Your task to perform on an android device: Clear all items from cart on ebay. Search for "macbook pro" on ebay, select the first entry, and add it to the cart. Image 0: 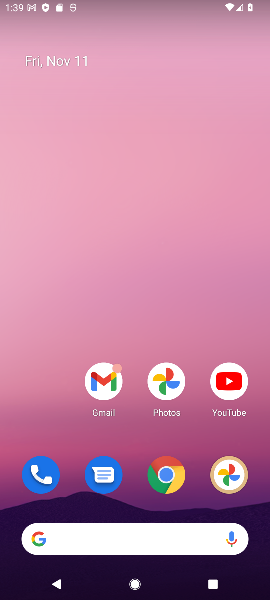
Step 0: drag from (113, 528) to (51, 112)
Your task to perform on an android device: Clear all items from cart on ebay. Search for "macbook pro" on ebay, select the first entry, and add it to the cart. Image 1: 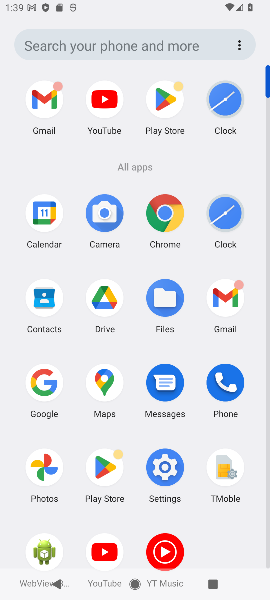
Step 1: click (172, 214)
Your task to perform on an android device: Clear all items from cart on ebay. Search for "macbook pro" on ebay, select the first entry, and add it to the cart. Image 2: 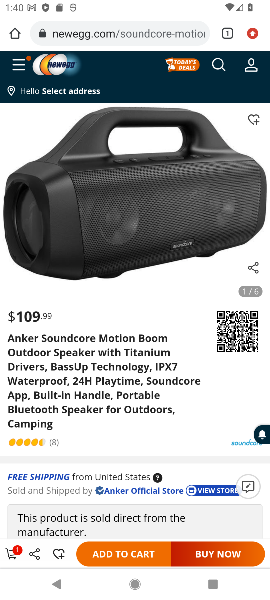
Step 2: click (93, 35)
Your task to perform on an android device: Clear all items from cart on ebay. Search for "macbook pro" on ebay, select the first entry, and add it to the cart. Image 3: 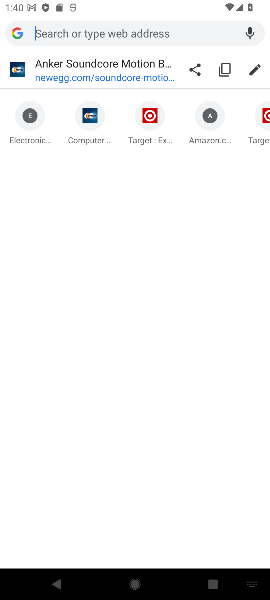
Step 3: type "ebay"
Your task to perform on an android device: Clear all items from cart on ebay. Search for "macbook pro" on ebay, select the first entry, and add it to the cart. Image 4: 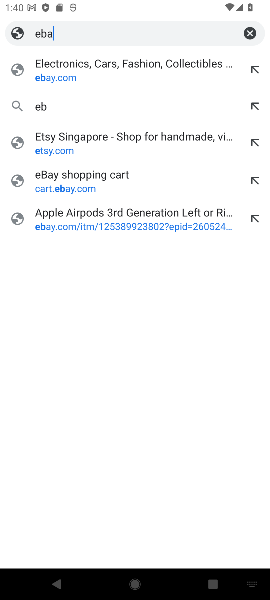
Step 4: press enter
Your task to perform on an android device: Clear all items from cart on ebay. Search for "macbook pro" on ebay, select the first entry, and add it to the cart. Image 5: 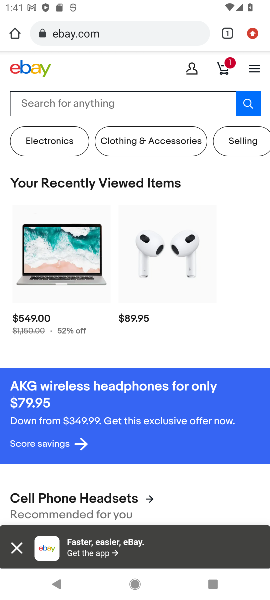
Step 5: click (81, 98)
Your task to perform on an android device: Clear all items from cart on ebay. Search for "macbook pro" on ebay, select the first entry, and add it to the cart. Image 6: 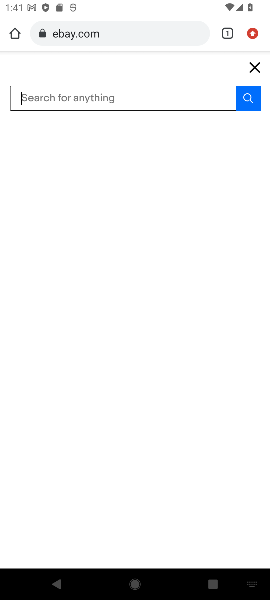
Step 6: click (254, 67)
Your task to perform on an android device: Clear all items from cart on ebay. Search for "macbook pro" on ebay, select the first entry, and add it to the cart. Image 7: 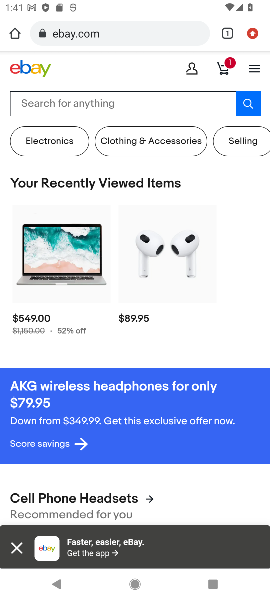
Step 7: click (228, 71)
Your task to perform on an android device: Clear all items from cart on ebay. Search for "macbook pro" on ebay, select the first entry, and add it to the cart. Image 8: 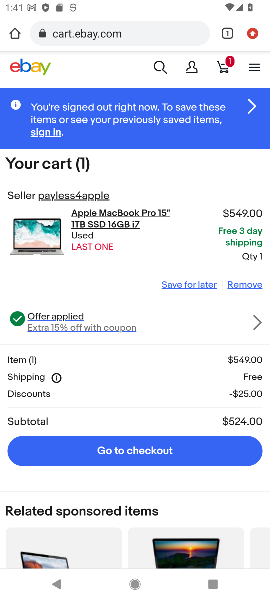
Step 8: click (242, 281)
Your task to perform on an android device: Clear all items from cart on ebay. Search for "macbook pro" on ebay, select the first entry, and add it to the cart. Image 9: 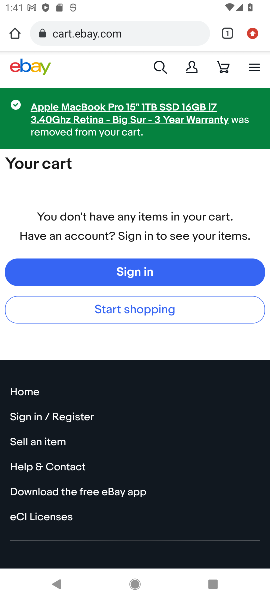
Step 9: click (157, 64)
Your task to perform on an android device: Clear all items from cart on ebay. Search for "macbook pro" on ebay, select the first entry, and add it to the cart. Image 10: 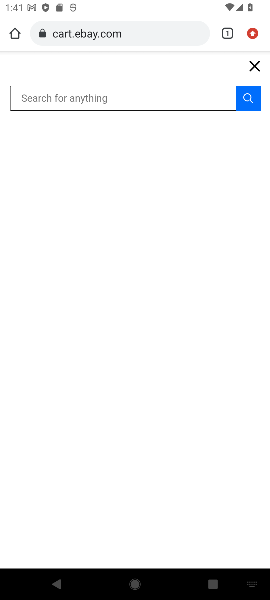
Step 10: click (215, 409)
Your task to perform on an android device: Clear all items from cart on ebay. Search for "macbook pro" on ebay, select the first entry, and add it to the cart. Image 11: 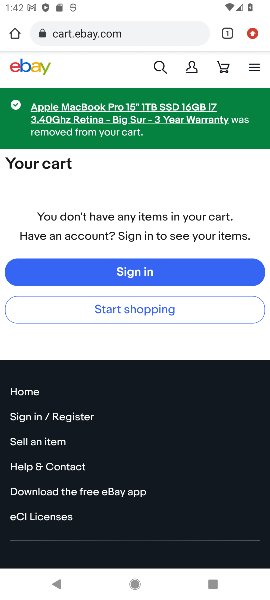
Step 11: click (160, 66)
Your task to perform on an android device: Clear all items from cart on ebay. Search for "macbook pro" on ebay, select the first entry, and add it to the cart. Image 12: 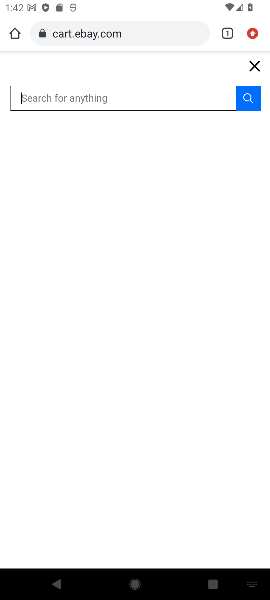
Step 12: type "macbook pro"
Your task to perform on an android device: Clear all items from cart on ebay. Search for "macbook pro" on ebay, select the first entry, and add it to the cart. Image 13: 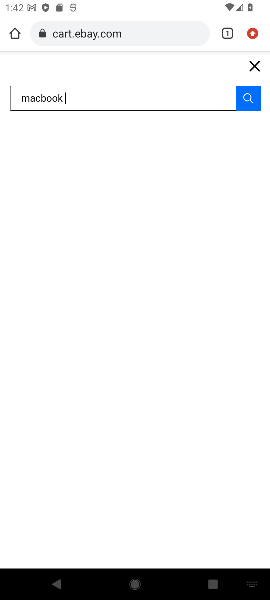
Step 13: press enter
Your task to perform on an android device: Clear all items from cart on ebay. Search for "macbook pro" on ebay, select the first entry, and add it to the cart. Image 14: 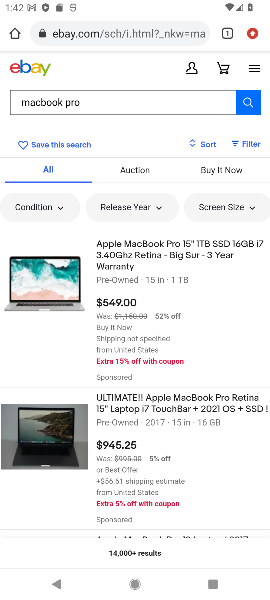
Step 14: click (128, 256)
Your task to perform on an android device: Clear all items from cart on ebay. Search for "macbook pro" on ebay, select the first entry, and add it to the cart. Image 15: 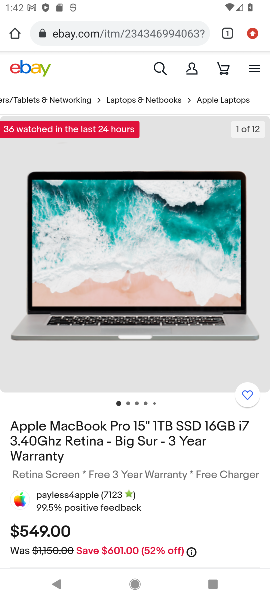
Step 15: drag from (163, 470) to (196, 237)
Your task to perform on an android device: Clear all items from cart on ebay. Search for "macbook pro" on ebay, select the first entry, and add it to the cart. Image 16: 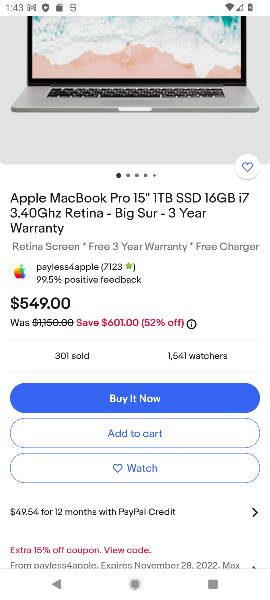
Step 16: click (157, 435)
Your task to perform on an android device: Clear all items from cart on ebay. Search for "macbook pro" on ebay, select the first entry, and add it to the cart. Image 17: 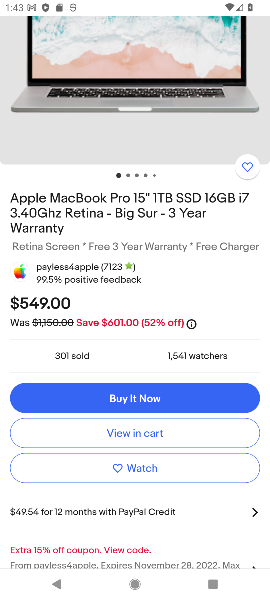
Step 17: task complete